Your task to perform on an android device: Show me productivity apps on the Play Store Image 0: 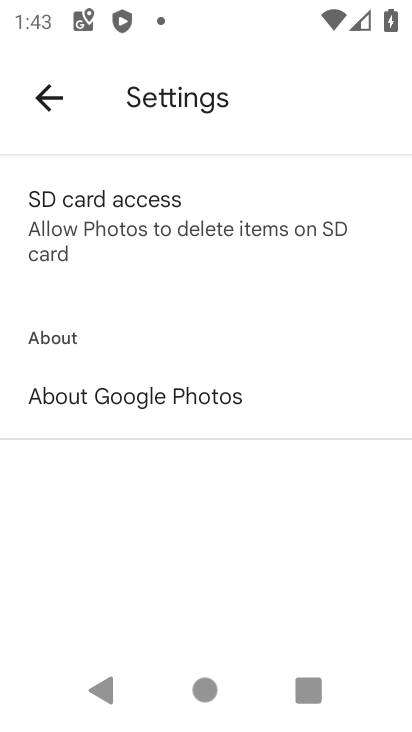
Step 0: press home button
Your task to perform on an android device: Show me productivity apps on the Play Store Image 1: 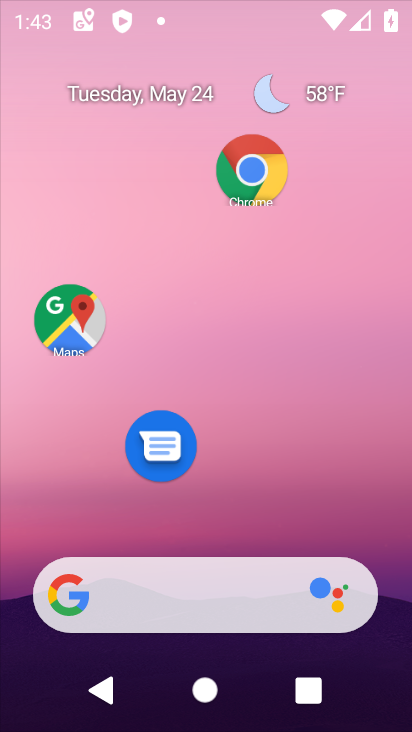
Step 1: drag from (265, 685) to (216, 143)
Your task to perform on an android device: Show me productivity apps on the Play Store Image 2: 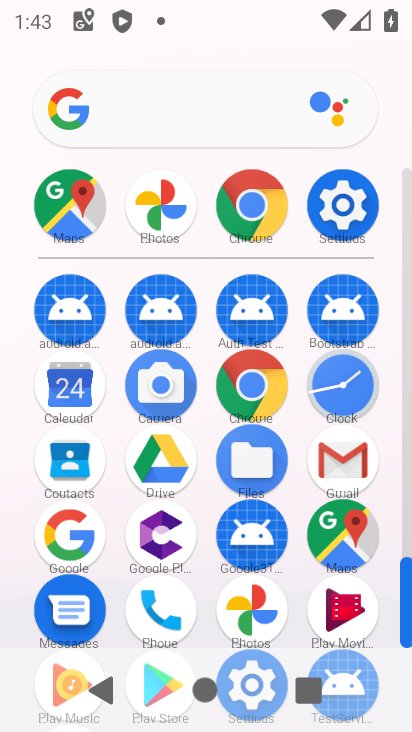
Step 2: drag from (176, 473) to (190, 115)
Your task to perform on an android device: Show me productivity apps on the Play Store Image 3: 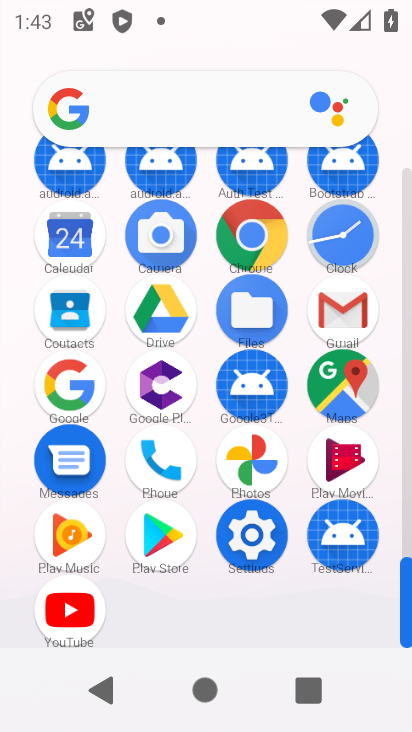
Step 3: click (162, 546)
Your task to perform on an android device: Show me productivity apps on the Play Store Image 4: 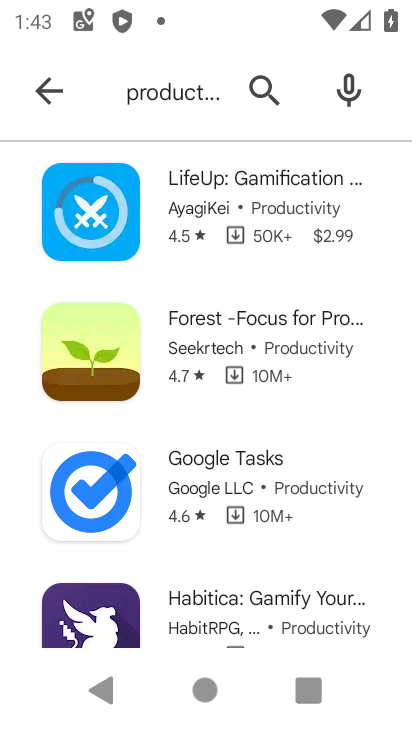
Step 4: task complete